Your task to perform on an android device: stop showing notifications on the lock screen Image 0: 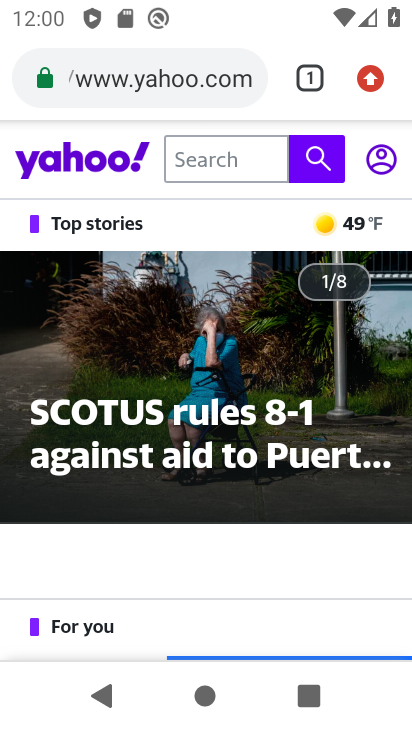
Step 0: press home button
Your task to perform on an android device: stop showing notifications on the lock screen Image 1: 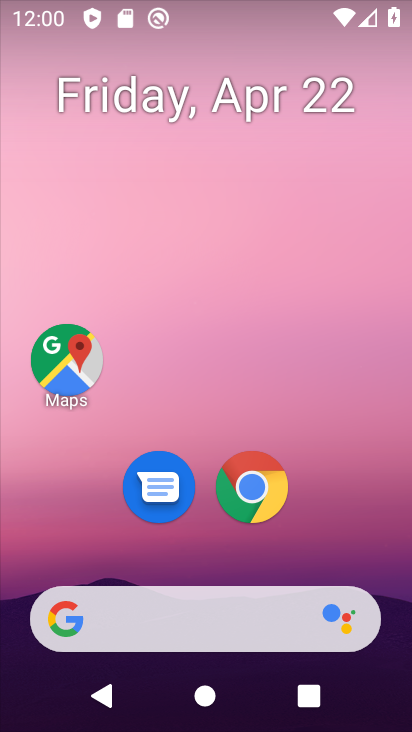
Step 1: drag from (353, 533) to (371, 72)
Your task to perform on an android device: stop showing notifications on the lock screen Image 2: 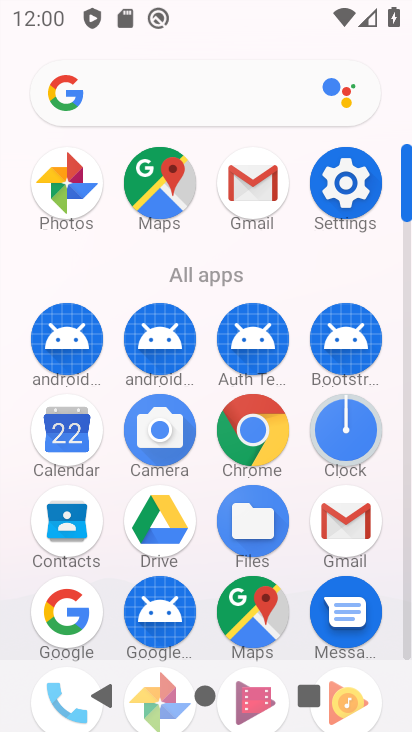
Step 2: click (344, 182)
Your task to perform on an android device: stop showing notifications on the lock screen Image 3: 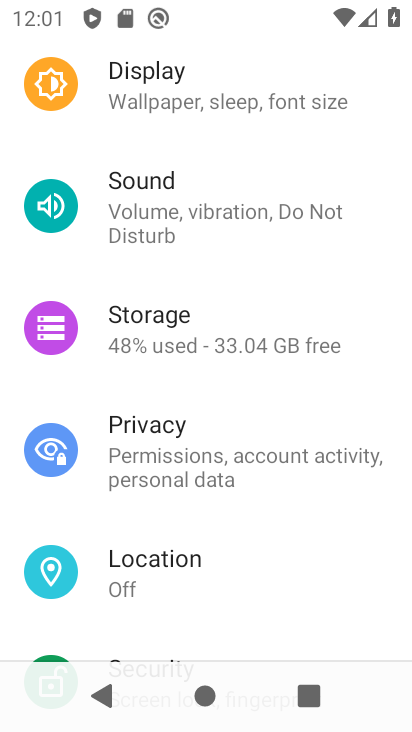
Step 3: drag from (262, 167) to (312, 592)
Your task to perform on an android device: stop showing notifications on the lock screen Image 4: 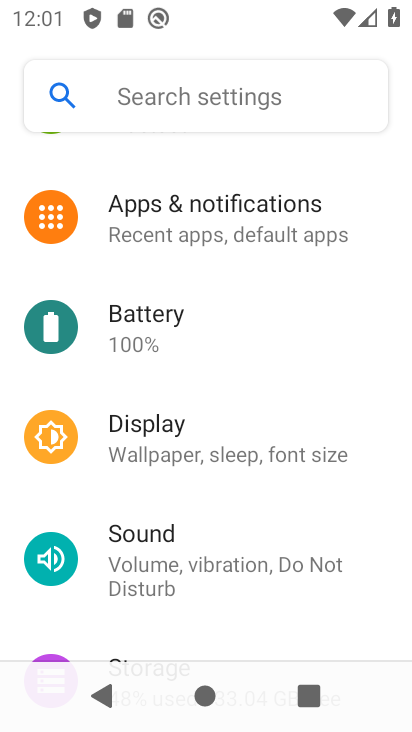
Step 4: click (253, 219)
Your task to perform on an android device: stop showing notifications on the lock screen Image 5: 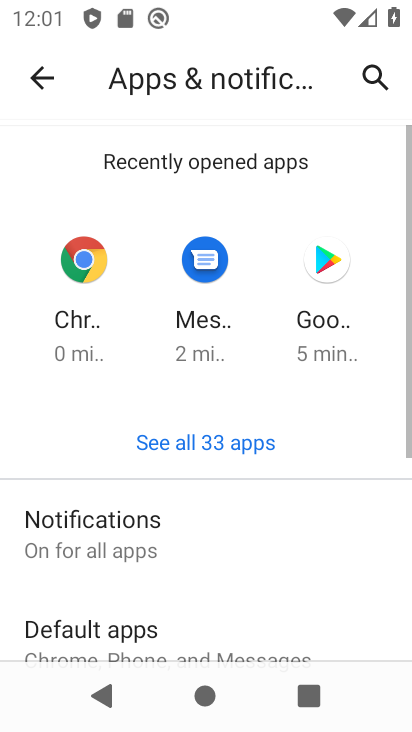
Step 5: click (283, 545)
Your task to perform on an android device: stop showing notifications on the lock screen Image 6: 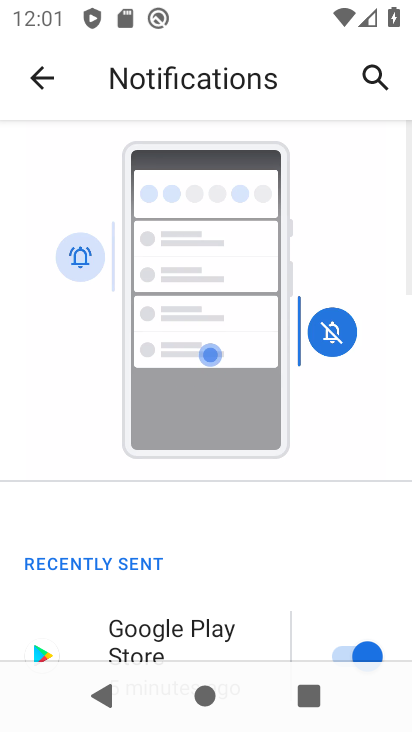
Step 6: drag from (272, 575) to (317, 146)
Your task to perform on an android device: stop showing notifications on the lock screen Image 7: 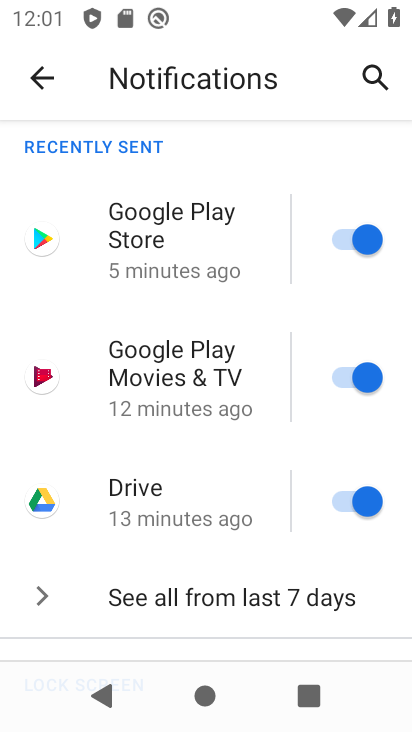
Step 7: drag from (252, 534) to (258, 194)
Your task to perform on an android device: stop showing notifications on the lock screen Image 8: 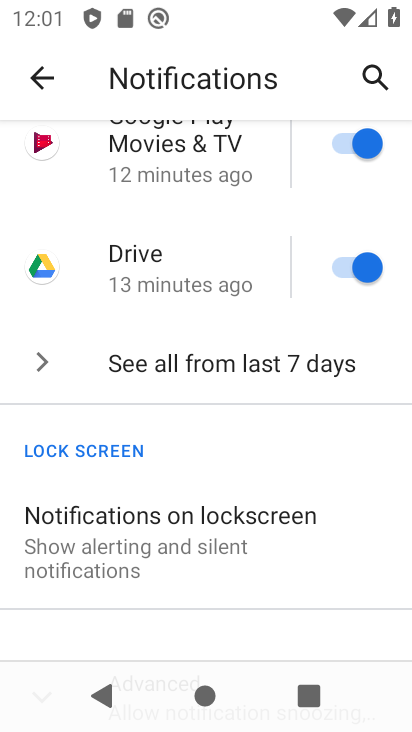
Step 8: click (249, 527)
Your task to perform on an android device: stop showing notifications on the lock screen Image 9: 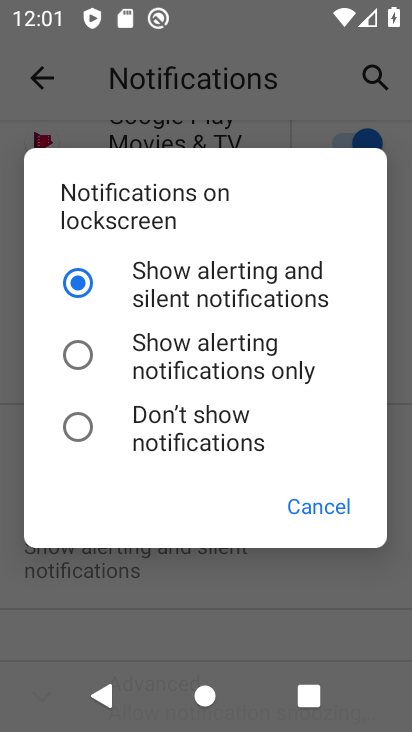
Step 9: click (78, 431)
Your task to perform on an android device: stop showing notifications on the lock screen Image 10: 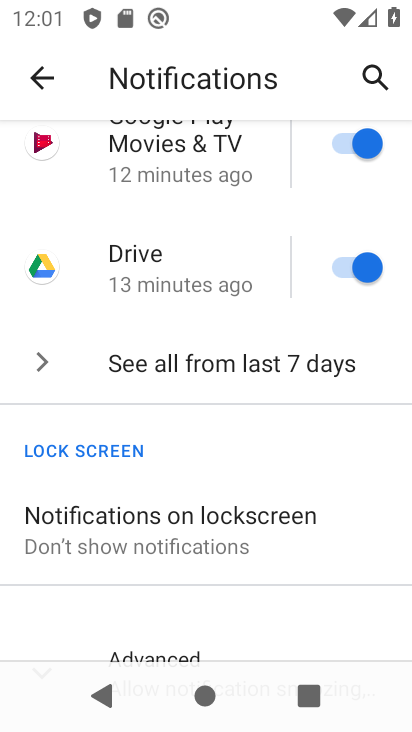
Step 10: task complete